Your task to perform on an android device: Open Google Maps and go to "Timeline" Image 0: 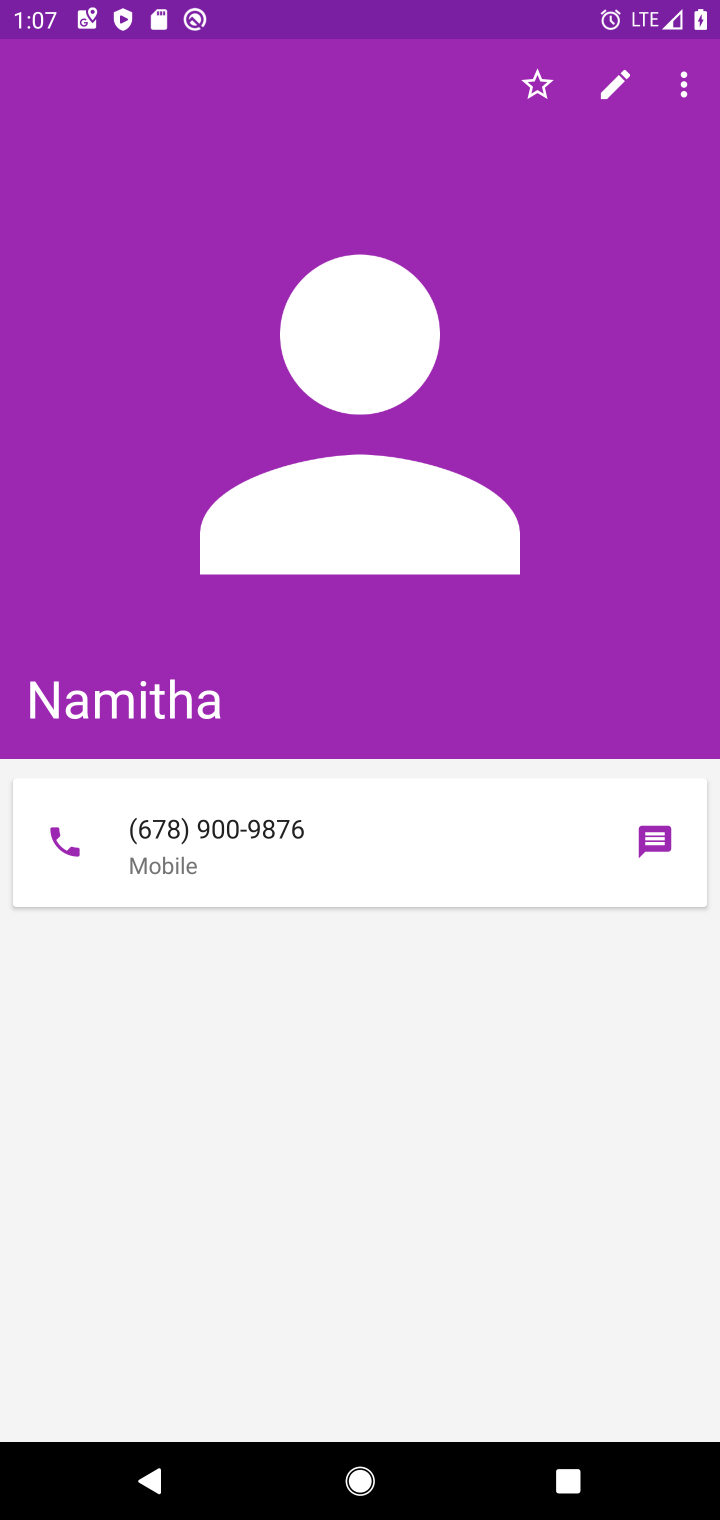
Step 0: press home button
Your task to perform on an android device: Open Google Maps and go to "Timeline" Image 1: 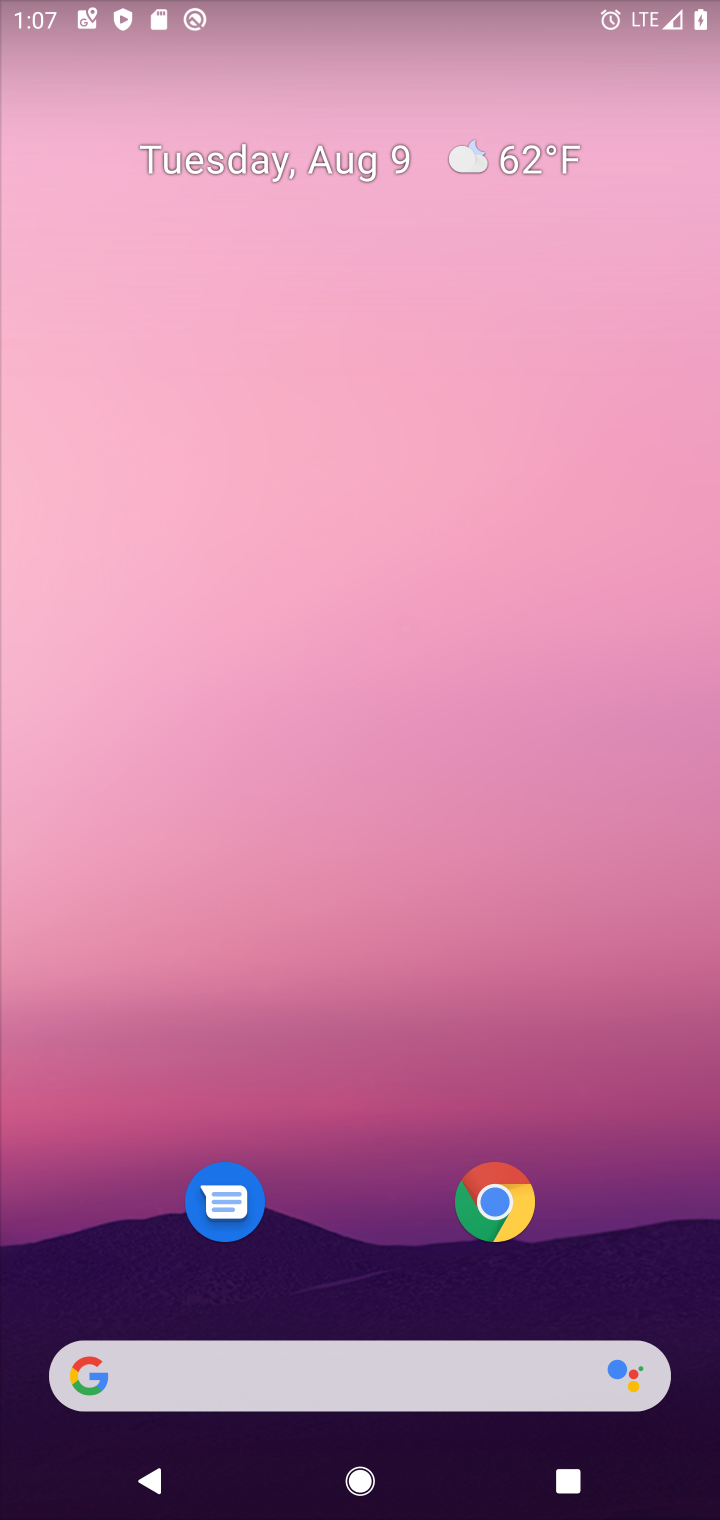
Step 1: drag from (298, 915) to (314, 149)
Your task to perform on an android device: Open Google Maps and go to "Timeline" Image 2: 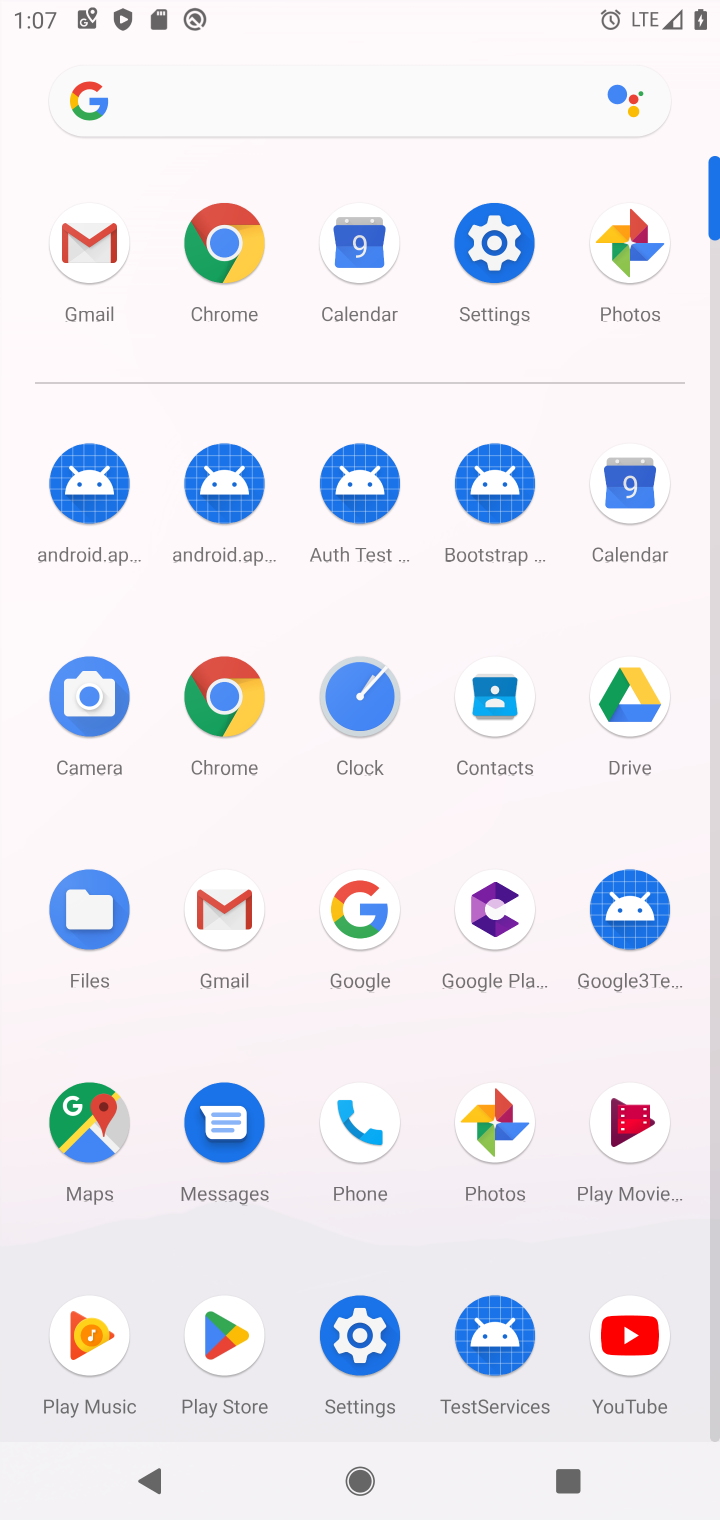
Step 2: click (74, 1135)
Your task to perform on an android device: Open Google Maps and go to "Timeline" Image 3: 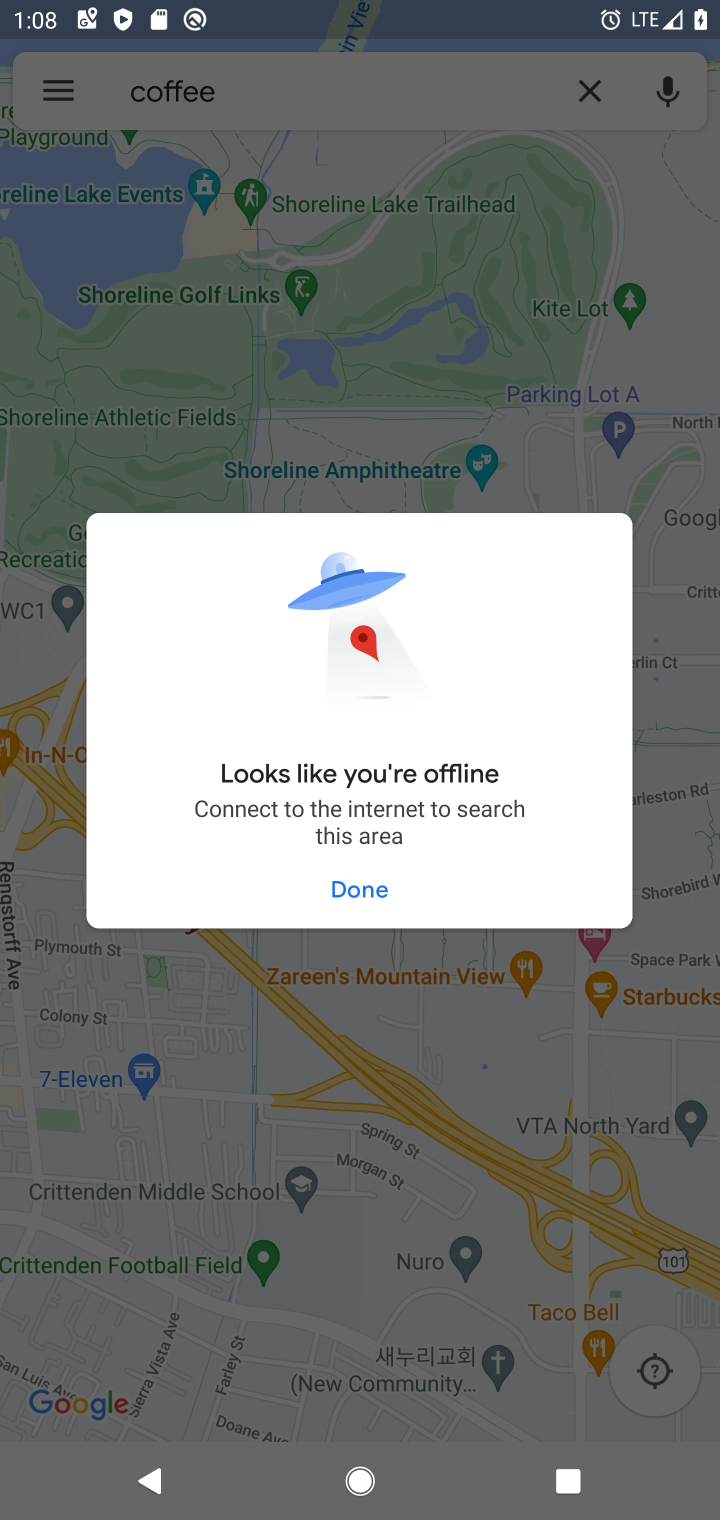
Step 3: click (363, 889)
Your task to perform on an android device: Open Google Maps and go to "Timeline" Image 4: 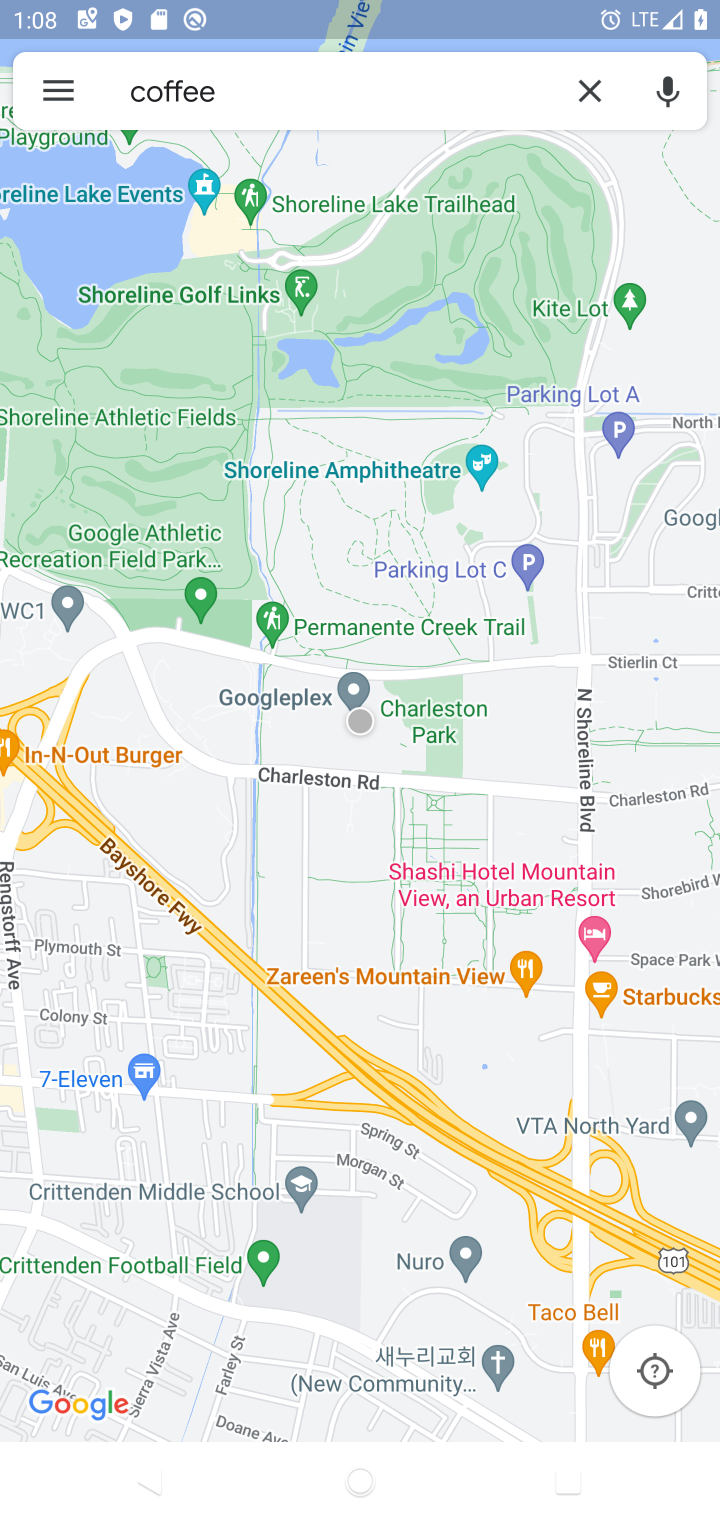
Step 4: click (590, 100)
Your task to perform on an android device: Open Google Maps and go to "Timeline" Image 5: 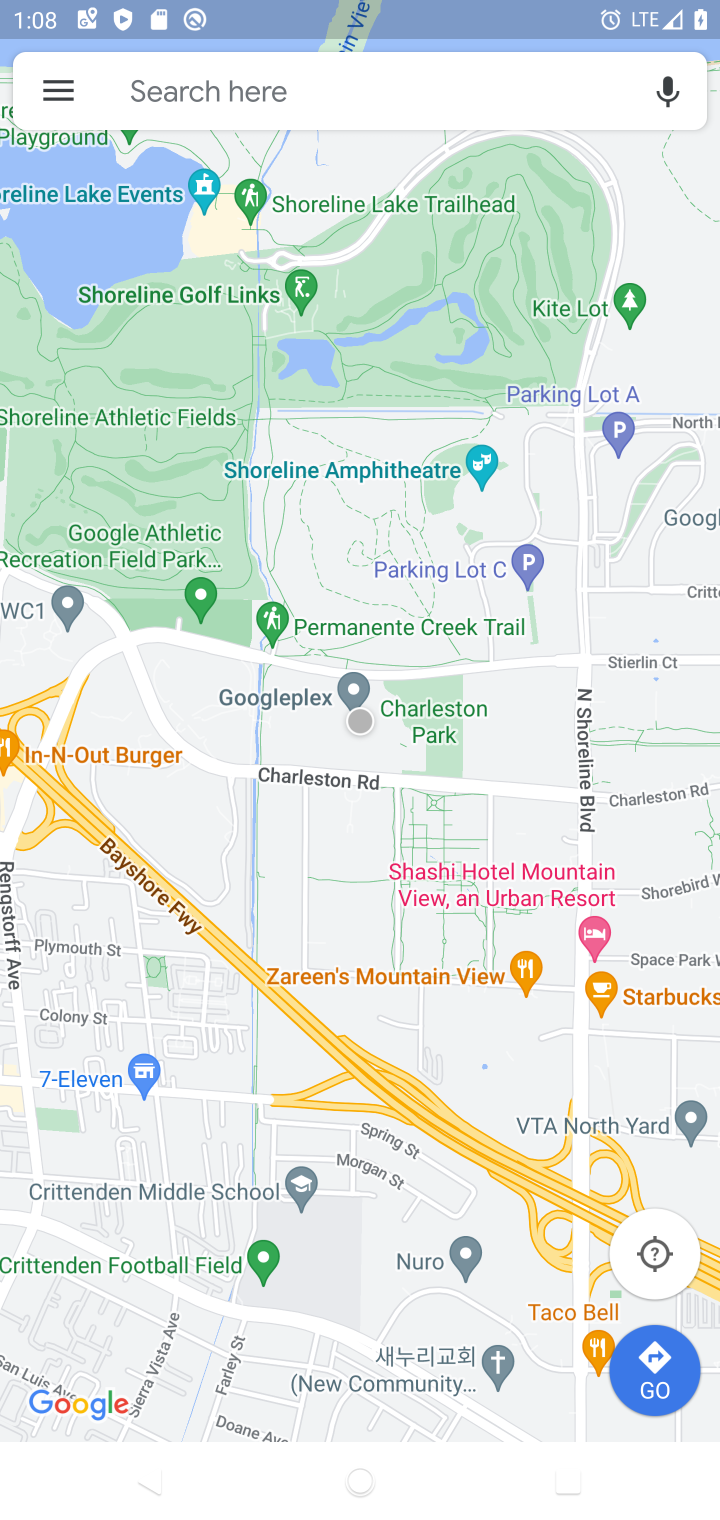
Step 5: click (42, 100)
Your task to perform on an android device: Open Google Maps and go to "Timeline" Image 6: 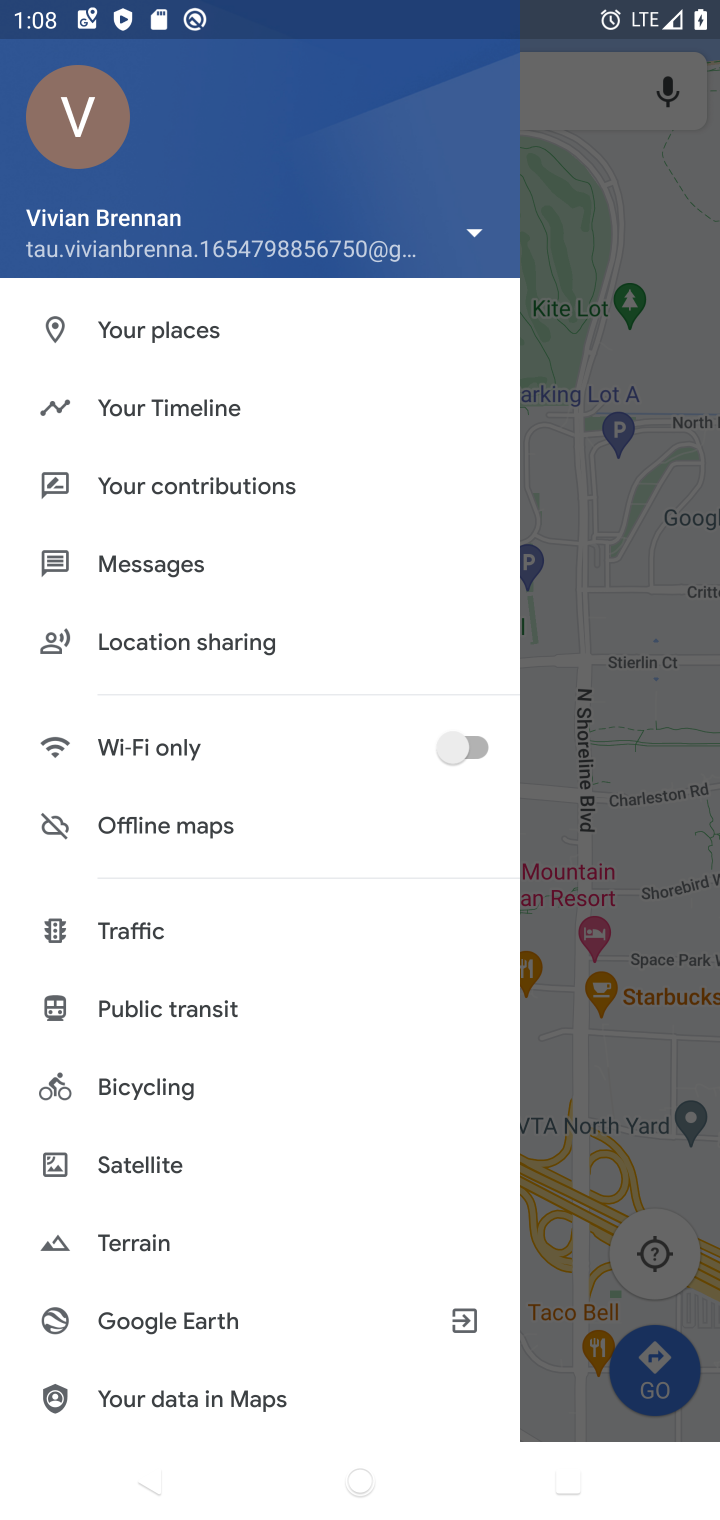
Step 6: click (170, 410)
Your task to perform on an android device: Open Google Maps and go to "Timeline" Image 7: 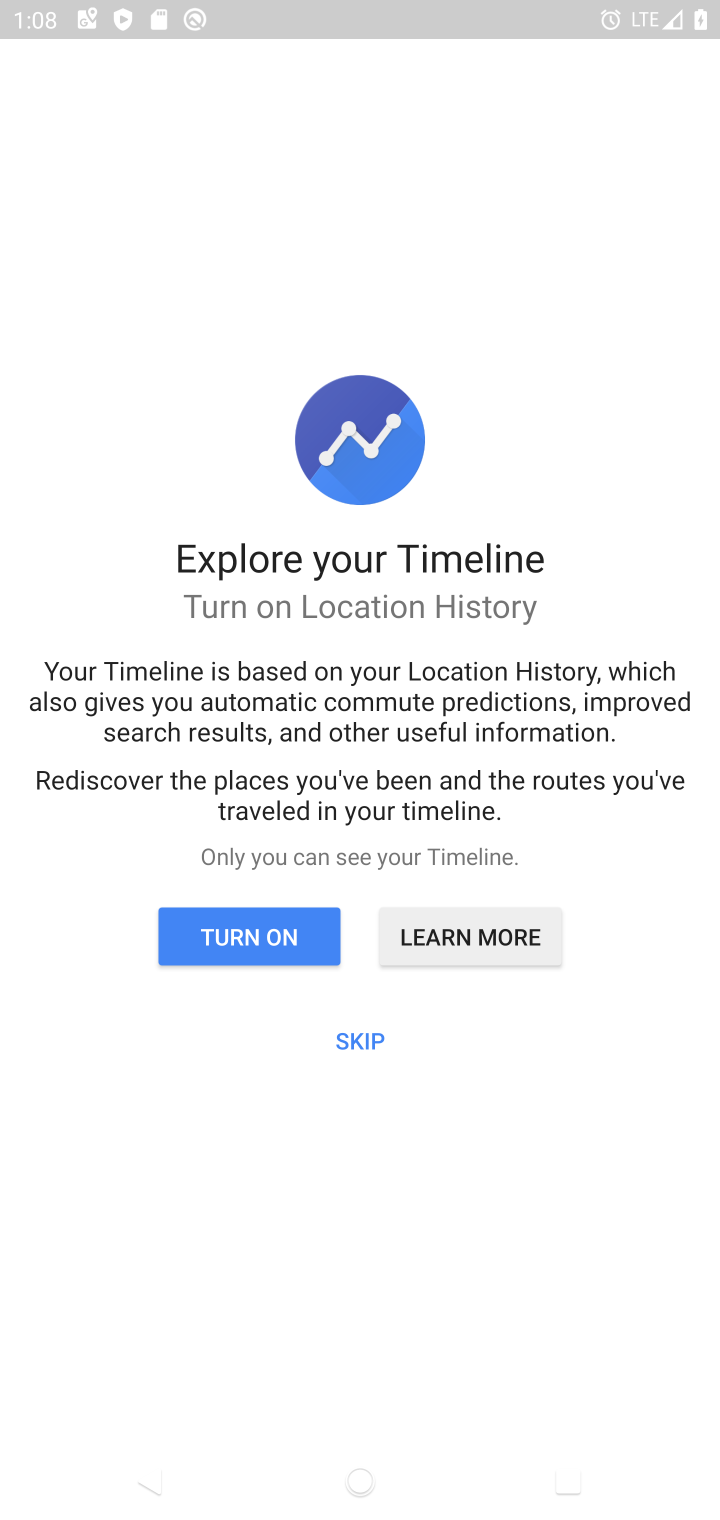
Step 7: click (211, 923)
Your task to perform on an android device: Open Google Maps and go to "Timeline" Image 8: 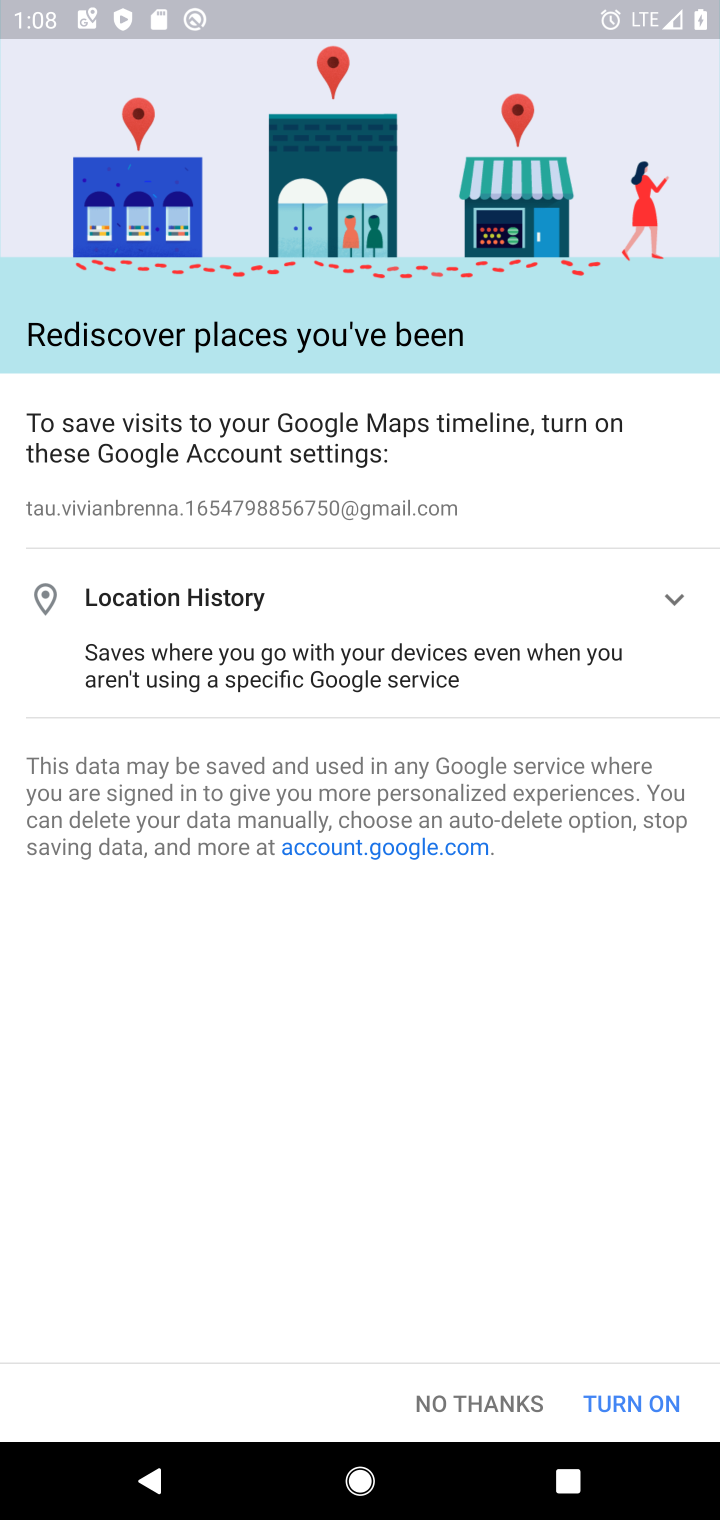
Step 8: click (625, 1404)
Your task to perform on an android device: Open Google Maps and go to "Timeline" Image 9: 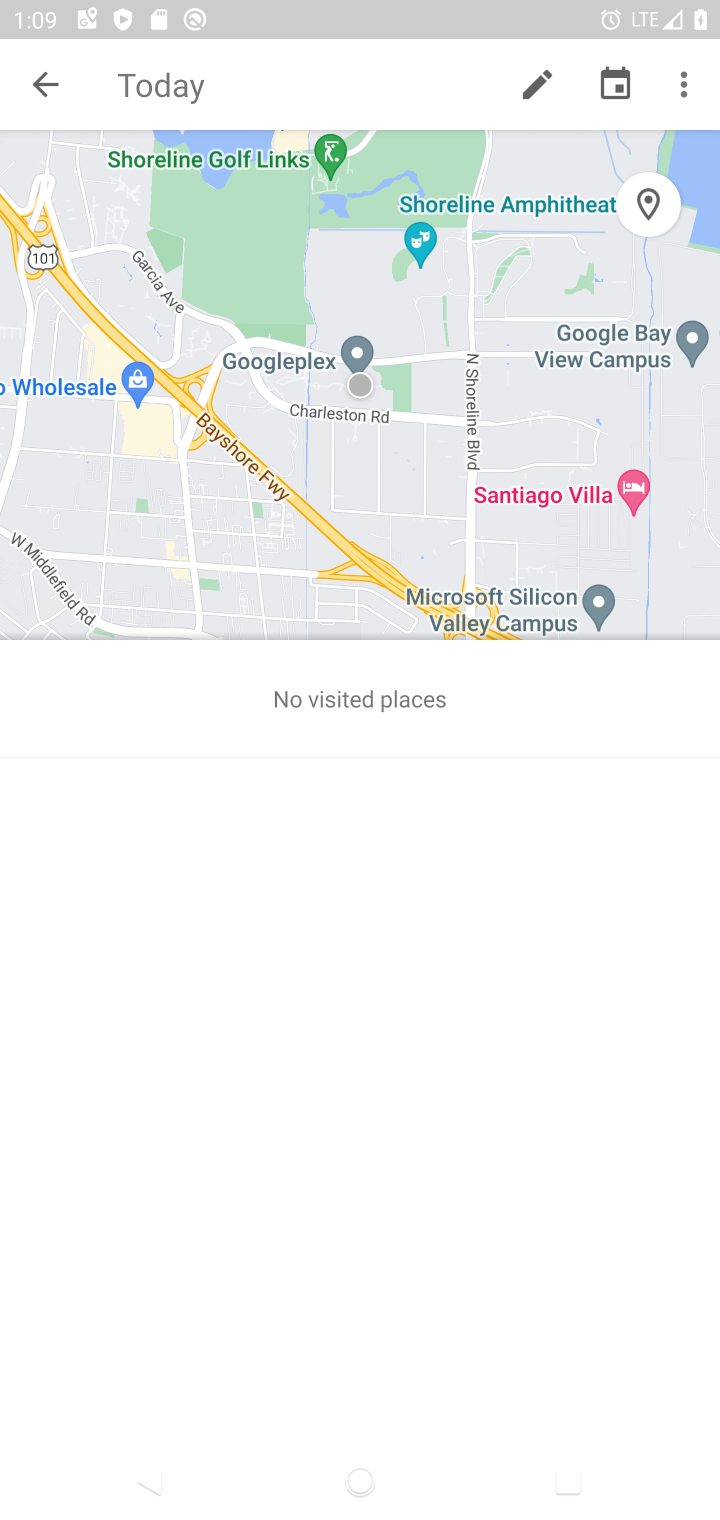
Step 9: task complete